Your task to perform on an android device: Open the stopwatch Image 0: 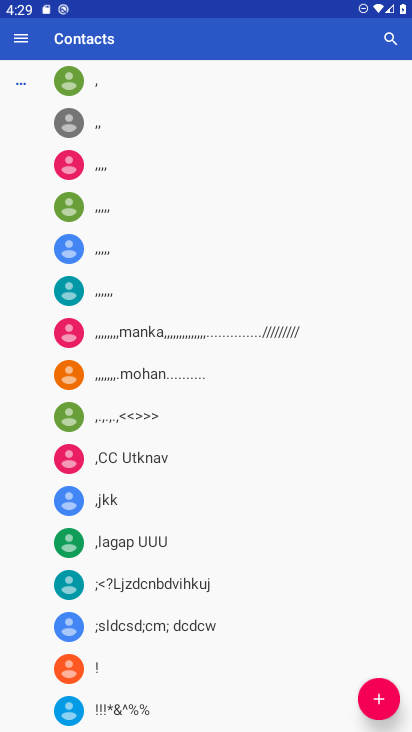
Step 0: press home button
Your task to perform on an android device: Open the stopwatch Image 1: 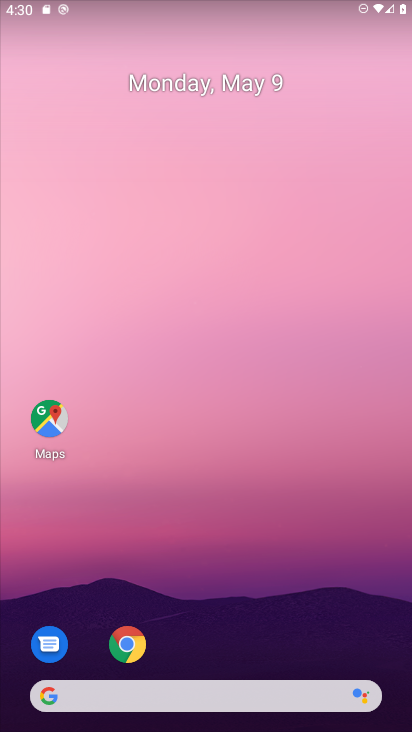
Step 1: drag from (288, 532) to (216, 130)
Your task to perform on an android device: Open the stopwatch Image 2: 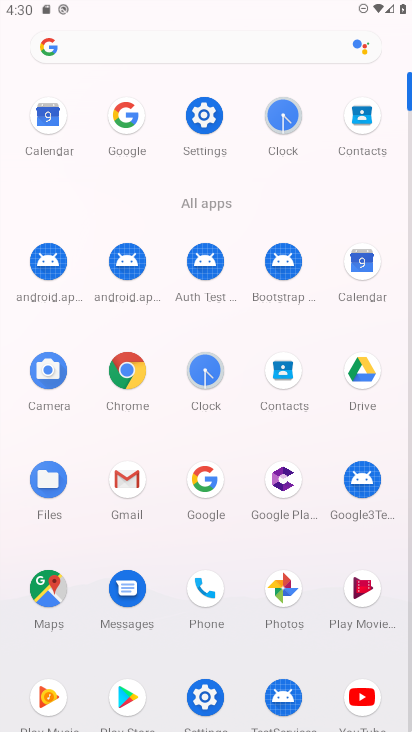
Step 2: click (209, 392)
Your task to perform on an android device: Open the stopwatch Image 3: 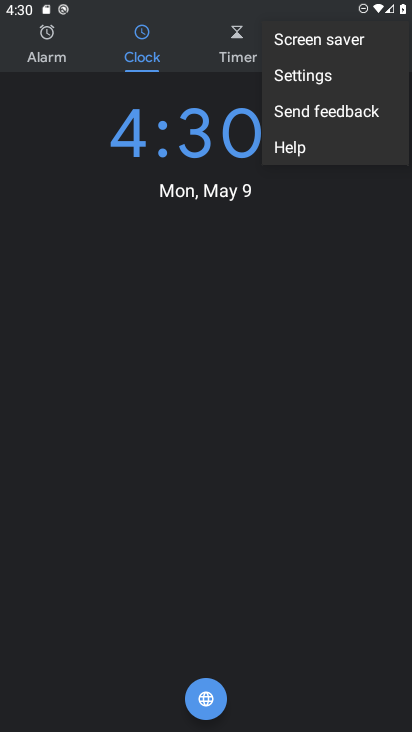
Step 3: click (331, 317)
Your task to perform on an android device: Open the stopwatch Image 4: 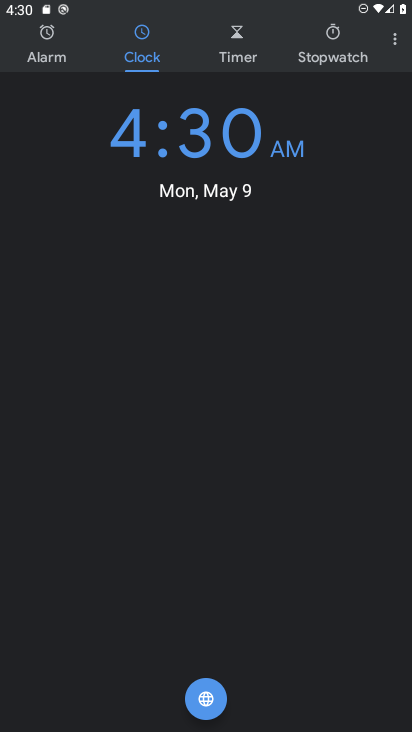
Step 4: click (336, 51)
Your task to perform on an android device: Open the stopwatch Image 5: 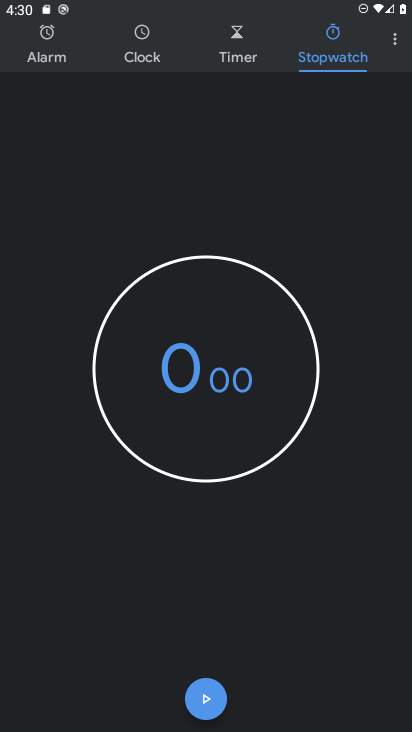
Step 5: task complete